Your task to perform on an android device: turn on notifications settings in the gmail app Image 0: 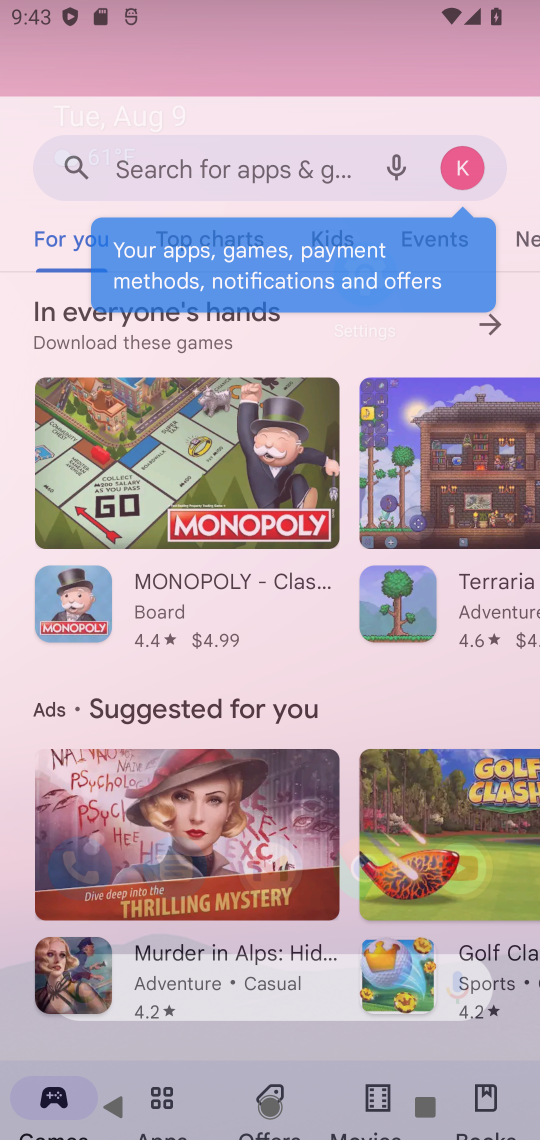
Step 0: press home button
Your task to perform on an android device: turn on notifications settings in the gmail app Image 1: 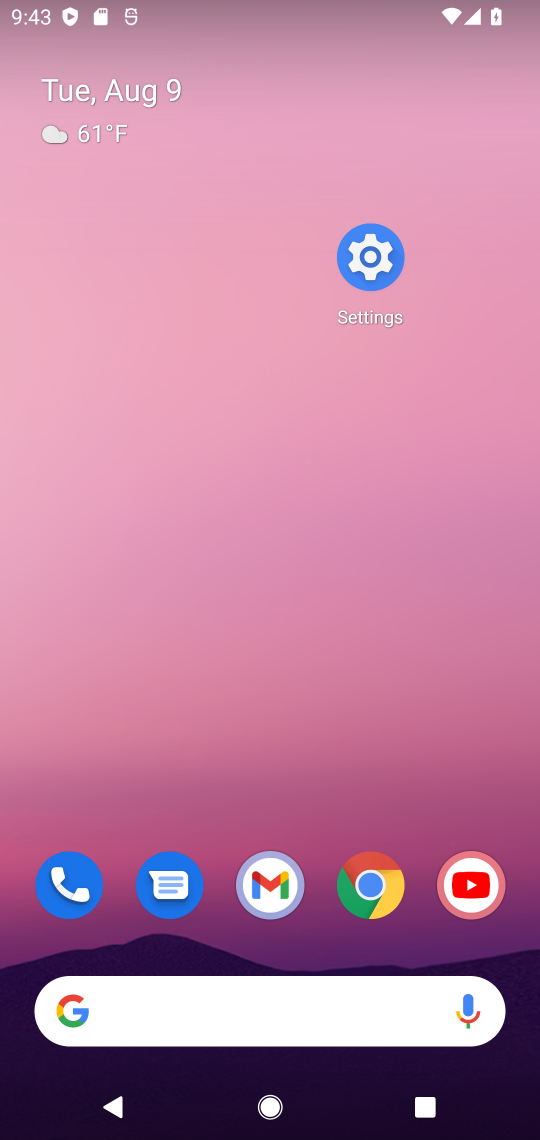
Step 1: drag from (324, 951) to (378, 246)
Your task to perform on an android device: turn on notifications settings in the gmail app Image 2: 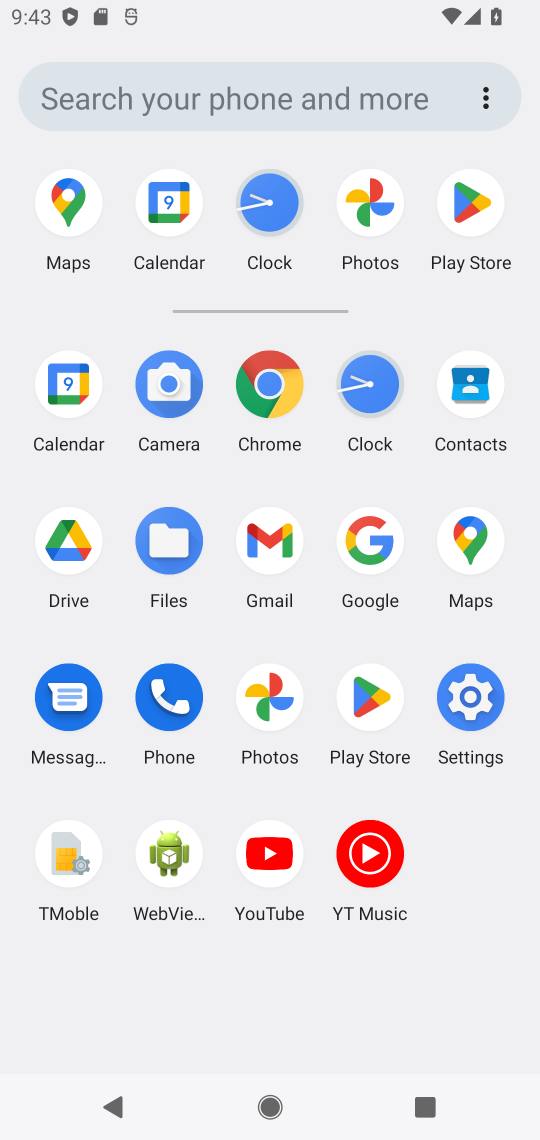
Step 2: click (266, 528)
Your task to perform on an android device: turn on notifications settings in the gmail app Image 3: 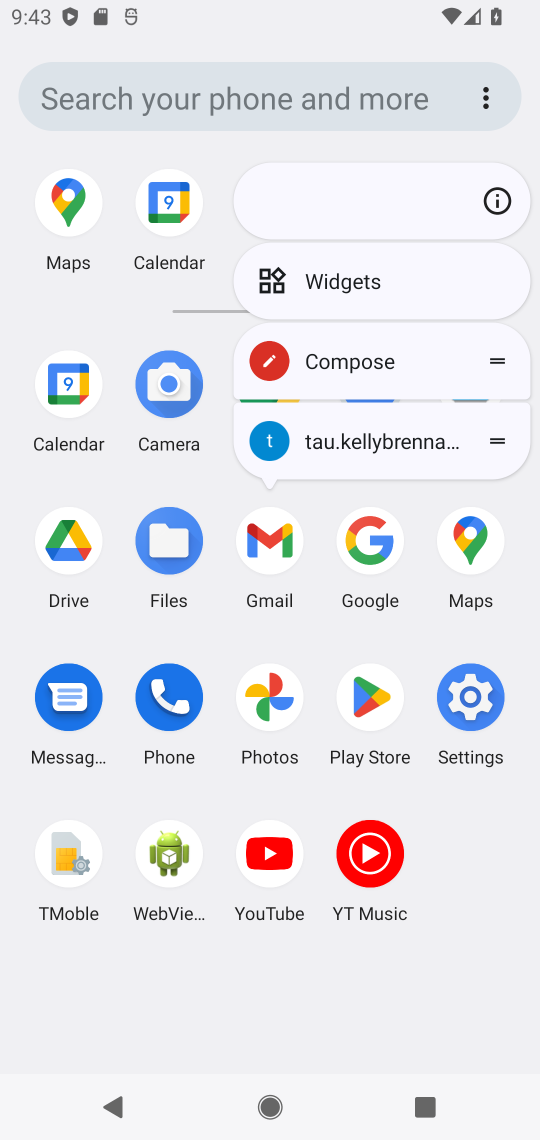
Step 3: click (267, 528)
Your task to perform on an android device: turn on notifications settings in the gmail app Image 4: 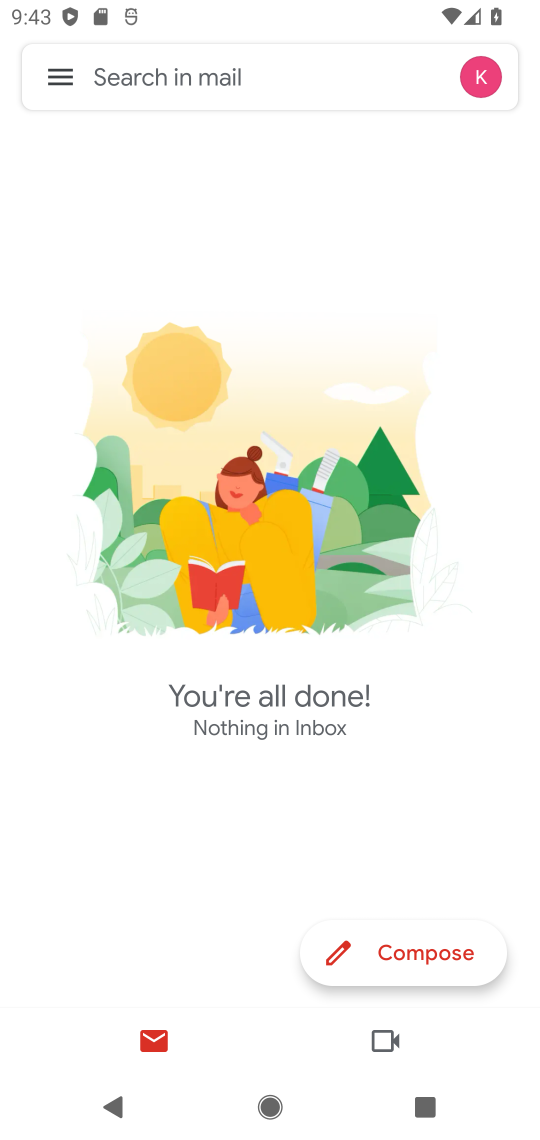
Step 4: click (52, 69)
Your task to perform on an android device: turn on notifications settings in the gmail app Image 5: 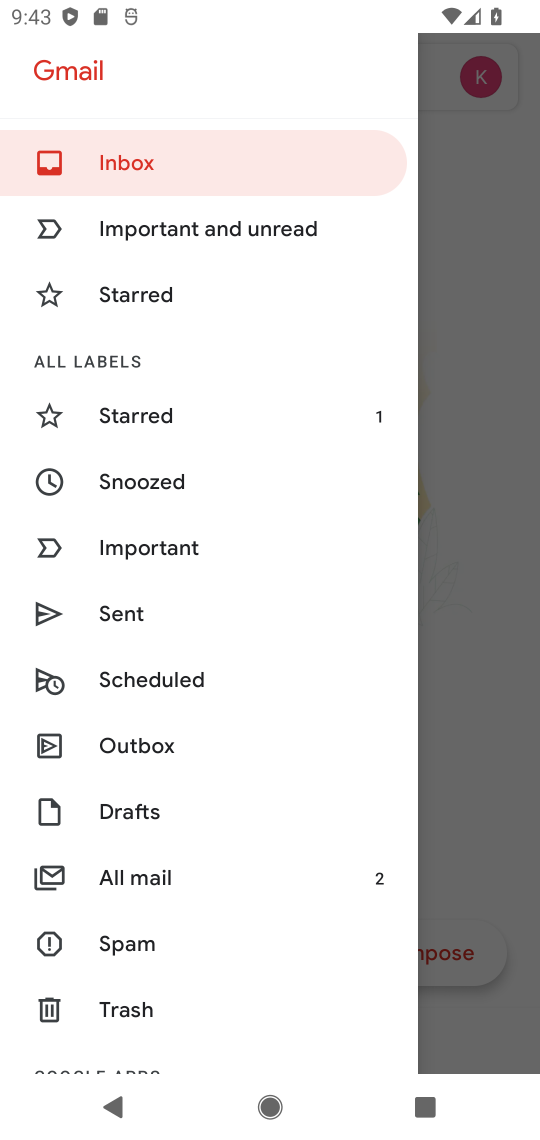
Step 5: drag from (245, 1030) to (320, 143)
Your task to perform on an android device: turn on notifications settings in the gmail app Image 6: 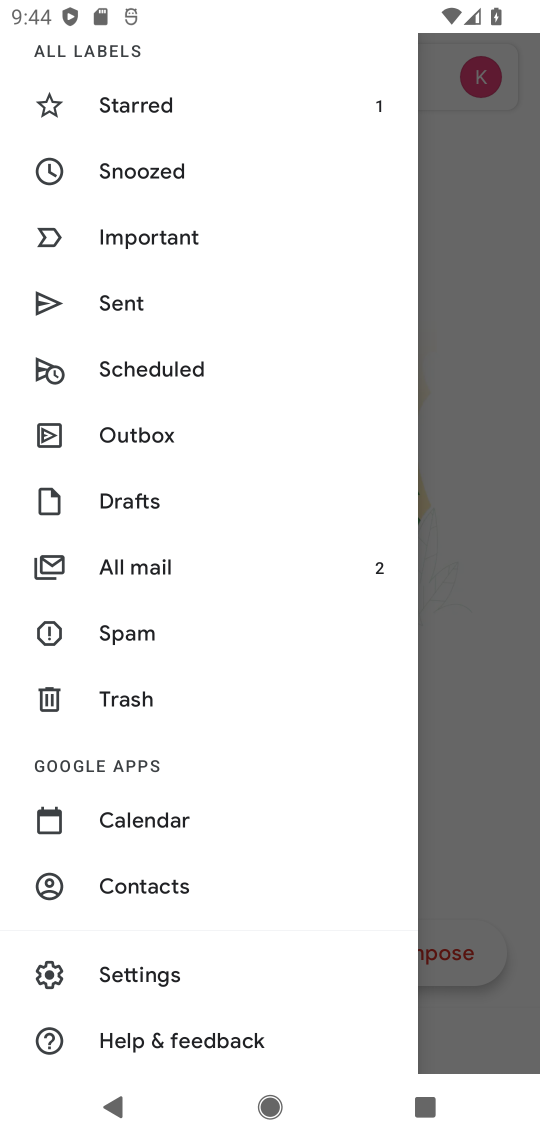
Step 6: click (201, 975)
Your task to perform on an android device: turn on notifications settings in the gmail app Image 7: 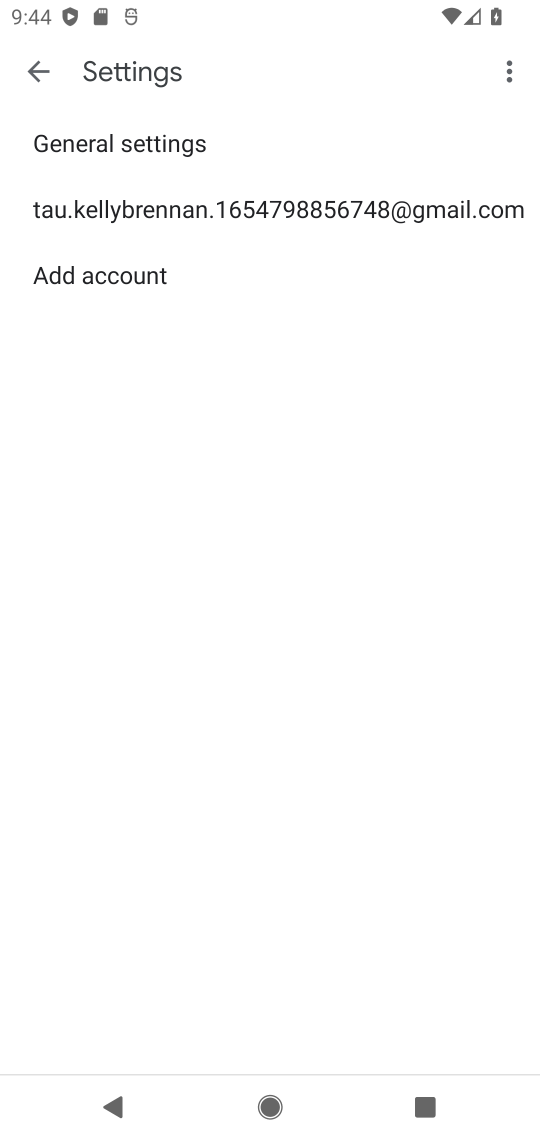
Step 7: click (234, 134)
Your task to perform on an android device: turn on notifications settings in the gmail app Image 8: 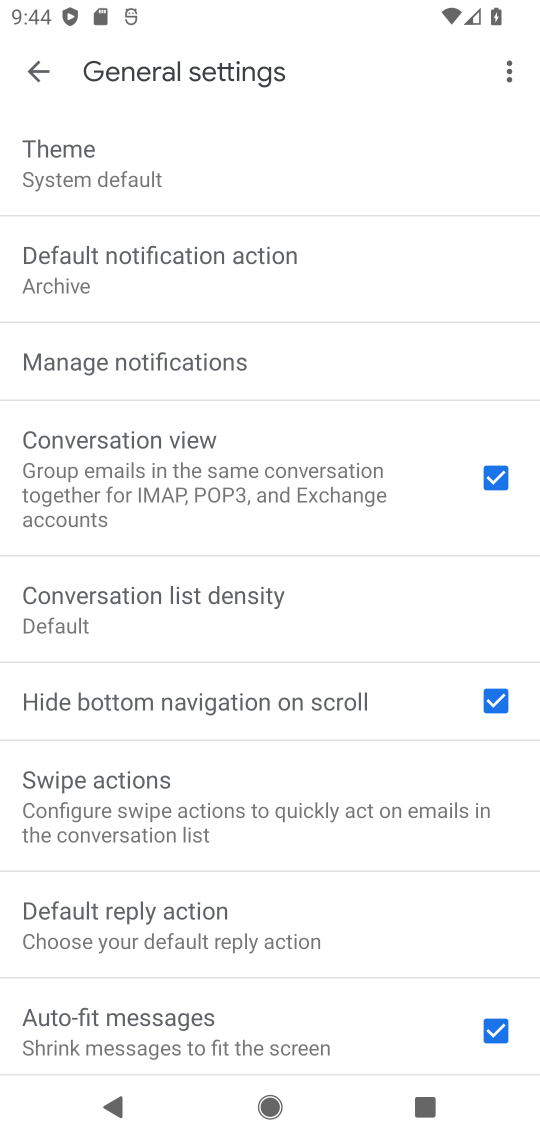
Step 8: click (263, 367)
Your task to perform on an android device: turn on notifications settings in the gmail app Image 9: 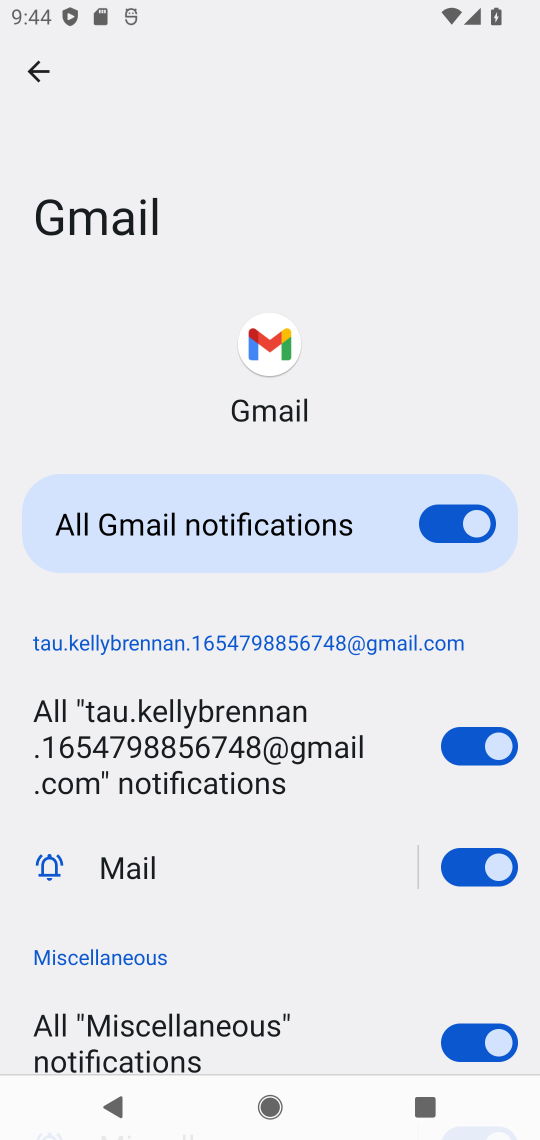
Step 9: click (452, 541)
Your task to perform on an android device: turn on notifications settings in the gmail app Image 10: 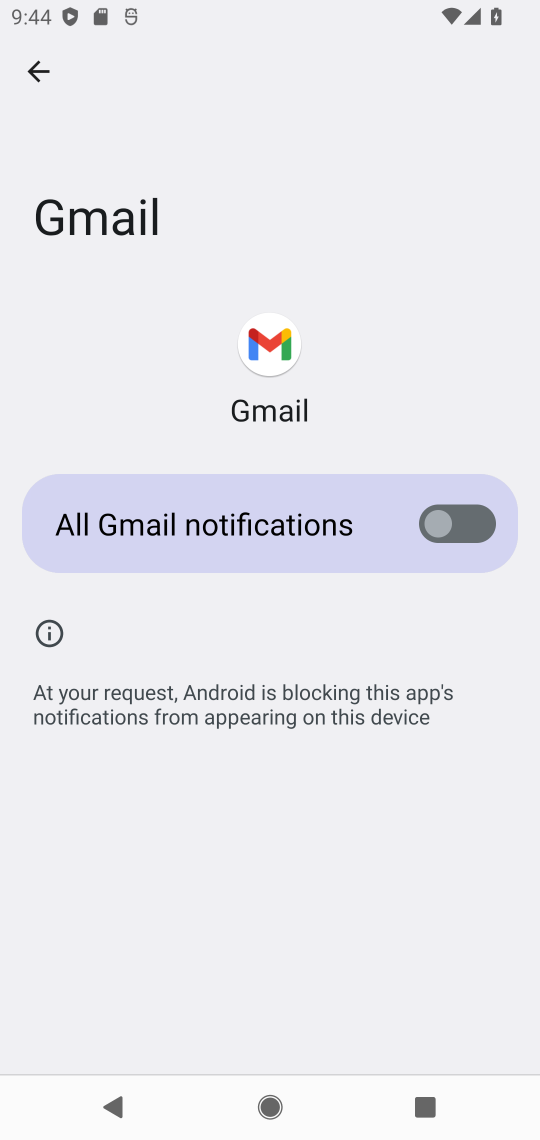
Step 10: click (455, 518)
Your task to perform on an android device: turn on notifications settings in the gmail app Image 11: 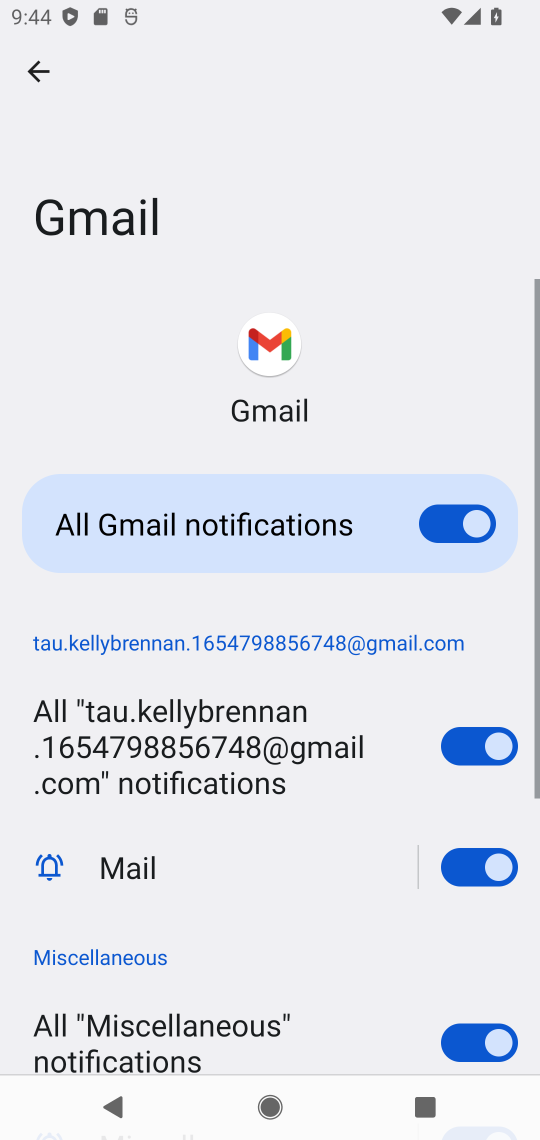
Step 11: task complete